Your task to perform on an android device: turn off translation in the chrome app Image 0: 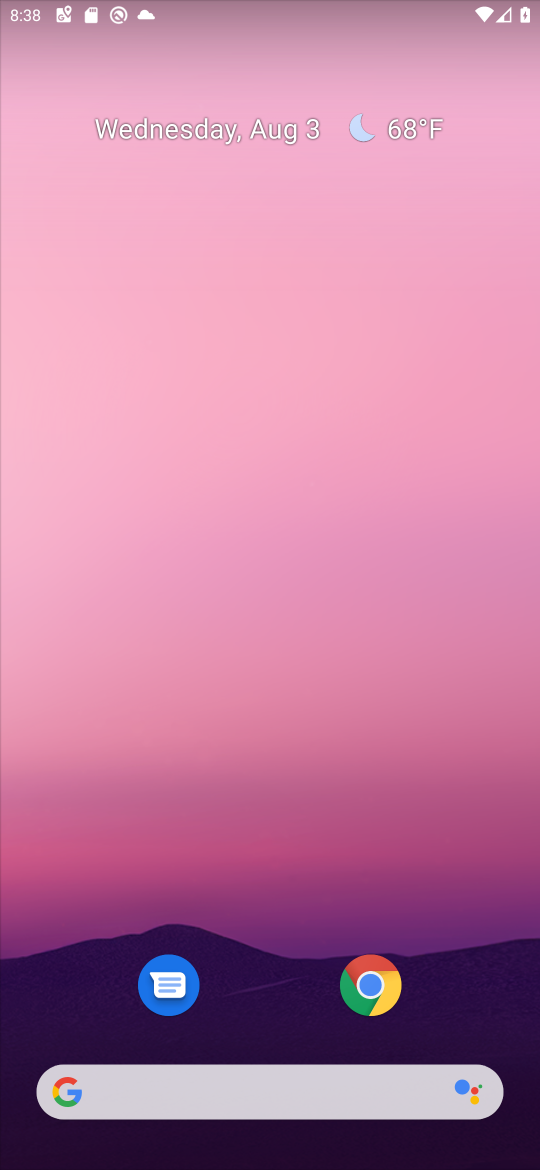
Step 0: click (369, 994)
Your task to perform on an android device: turn off translation in the chrome app Image 1: 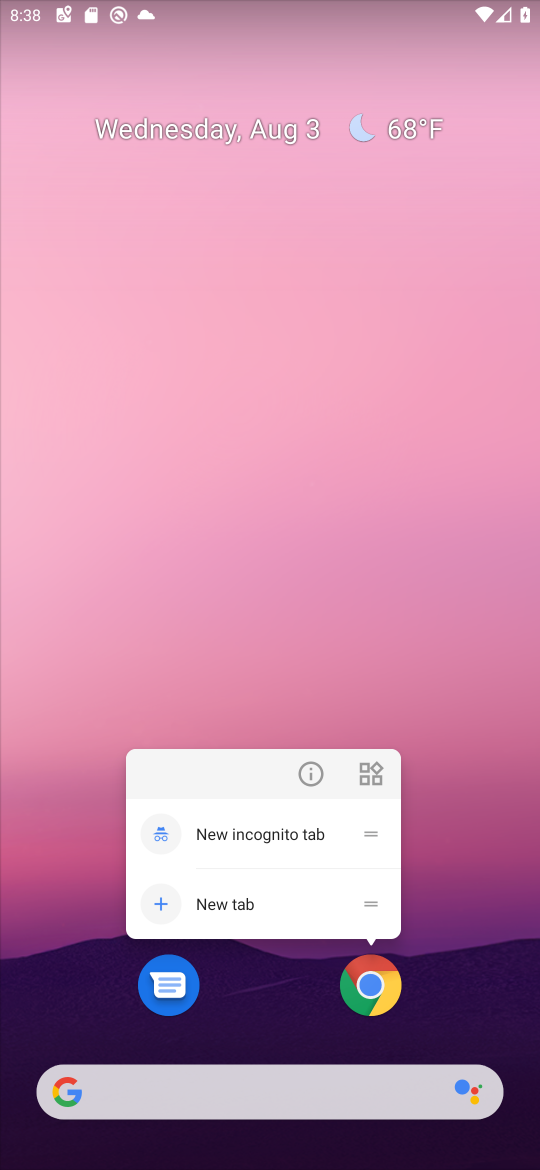
Step 1: click (357, 961)
Your task to perform on an android device: turn off translation in the chrome app Image 2: 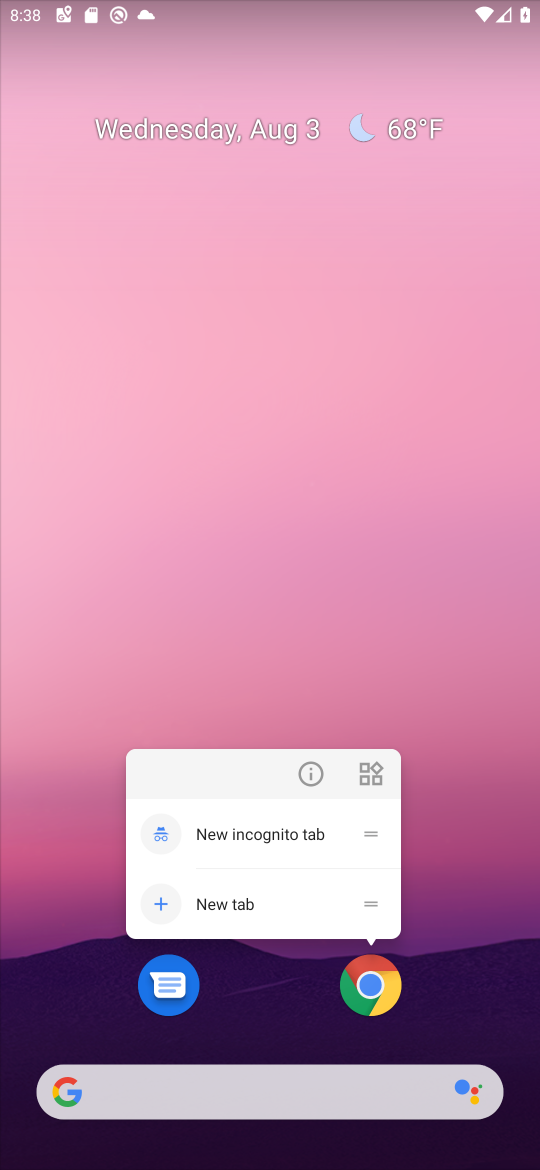
Step 2: click (357, 961)
Your task to perform on an android device: turn off translation in the chrome app Image 3: 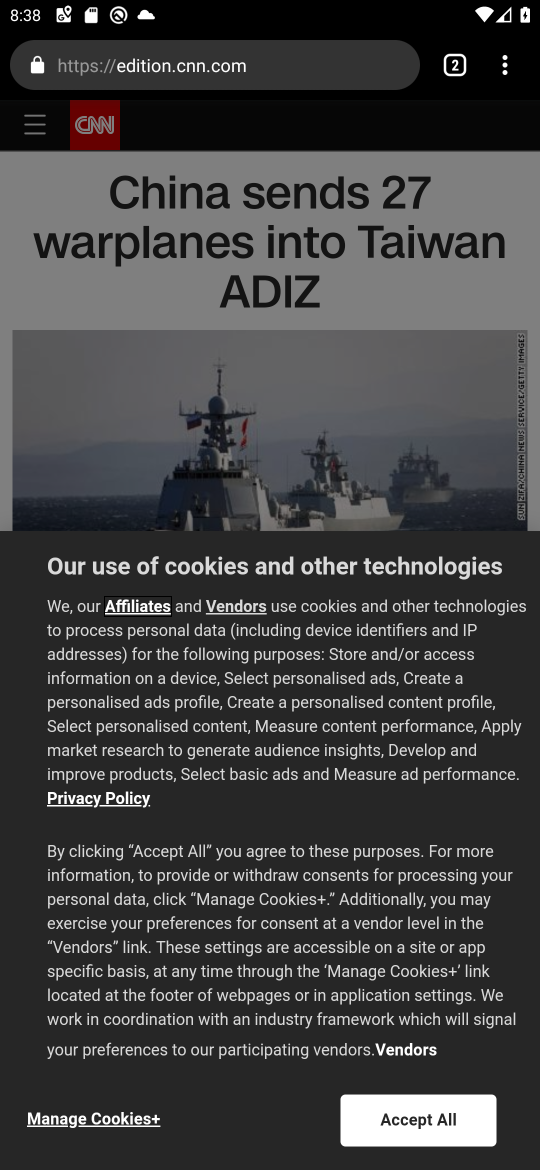
Step 3: drag from (514, 70) to (261, 718)
Your task to perform on an android device: turn off translation in the chrome app Image 4: 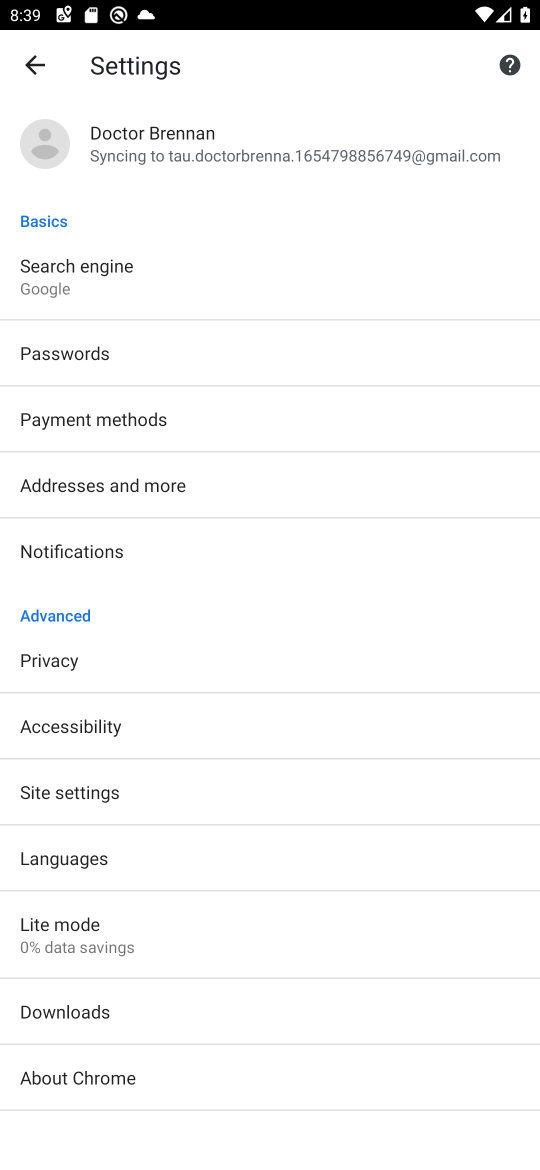
Step 4: click (123, 851)
Your task to perform on an android device: turn off translation in the chrome app Image 5: 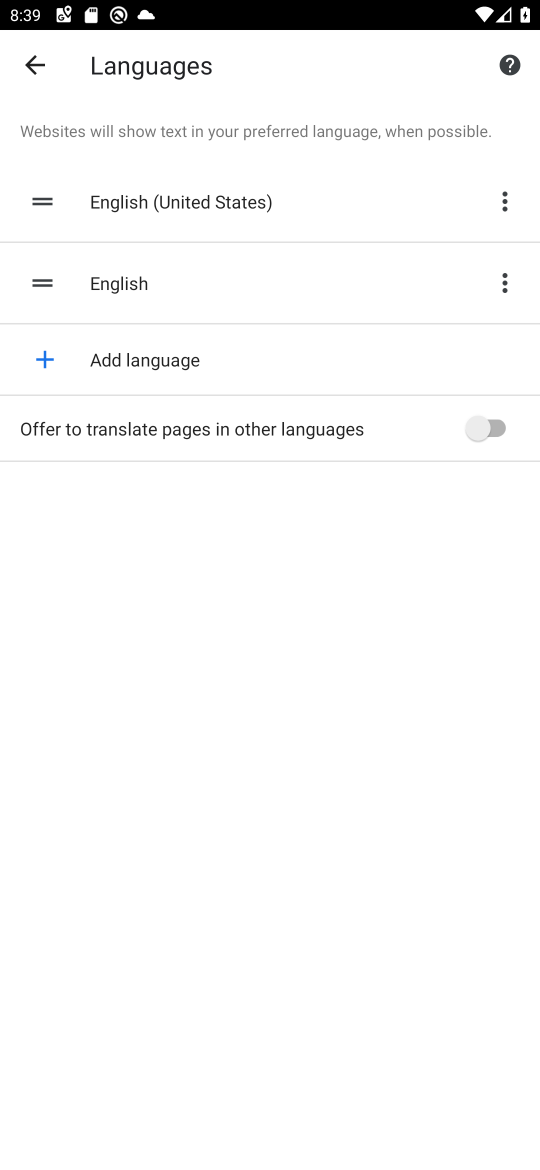
Step 5: task complete